Your task to perform on an android device: change notification settings in the gmail app Image 0: 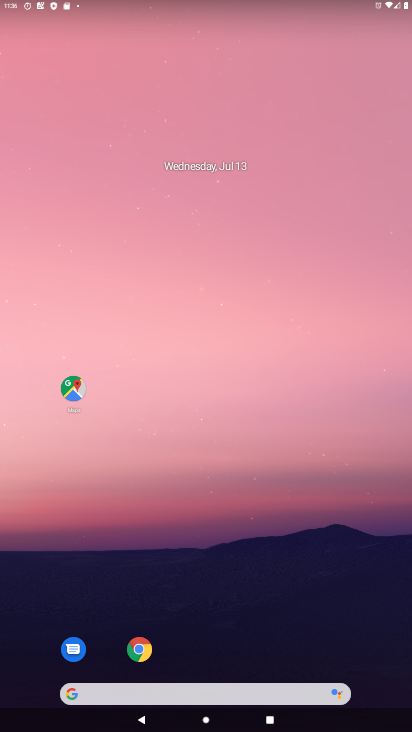
Step 0: drag from (206, 694) to (213, 174)
Your task to perform on an android device: change notification settings in the gmail app Image 1: 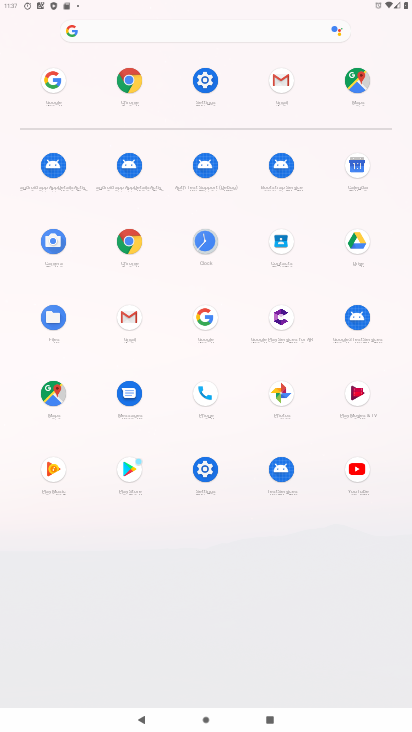
Step 1: click (281, 79)
Your task to perform on an android device: change notification settings in the gmail app Image 2: 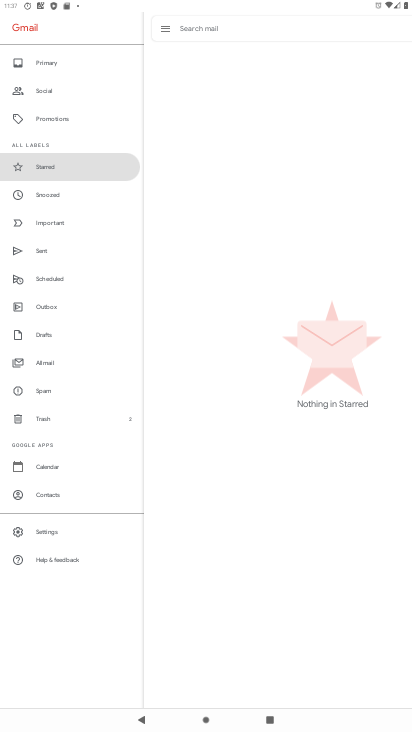
Step 2: click (48, 530)
Your task to perform on an android device: change notification settings in the gmail app Image 3: 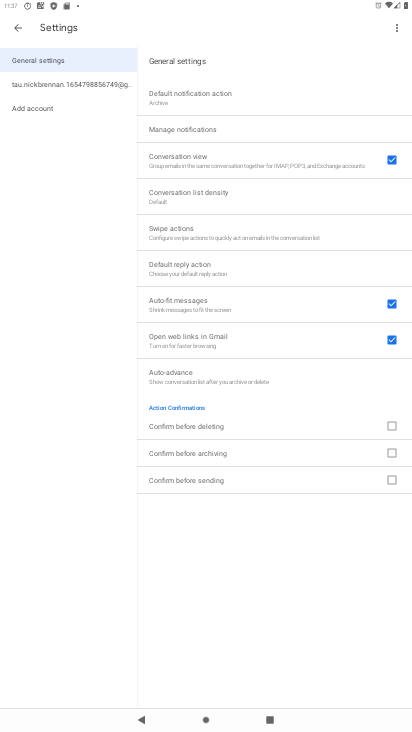
Step 3: click (197, 128)
Your task to perform on an android device: change notification settings in the gmail app Image 4: 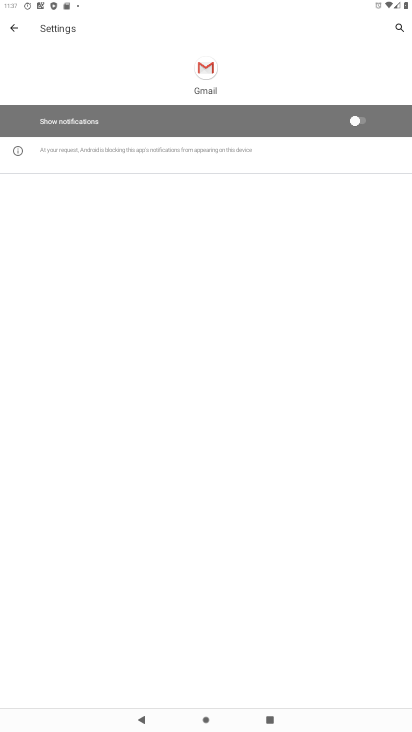
Step 4: click (353, 122)
Your task to perform on an android device: change notification settings in the gmail app Image 5: 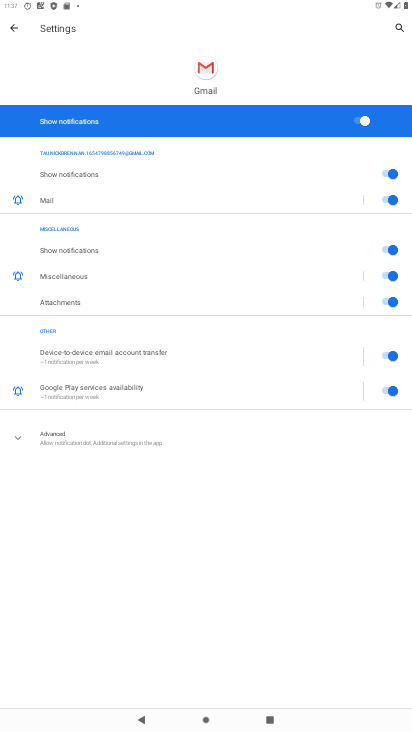
Step 5: task complete